Your task to perform on an android device: What is the news today? Image 0: 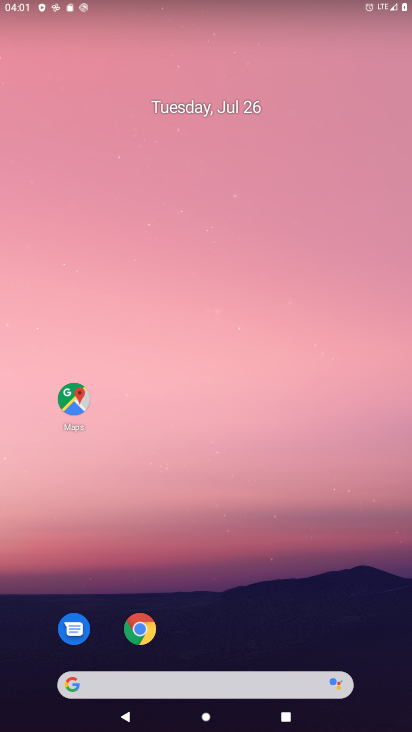
Step 0: drag from (234, 608) to (280, 94)
Your task to perform on an android device: What is the news today? Image 1: 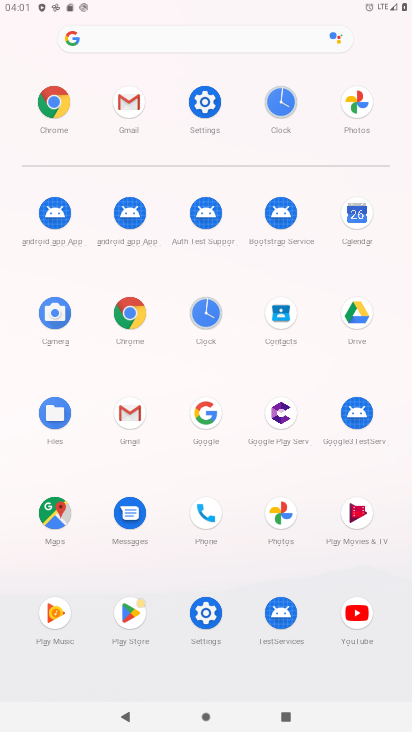
Step 1: click (132, 314)
Your task to perform on an android device: What is the news today? Image 2: 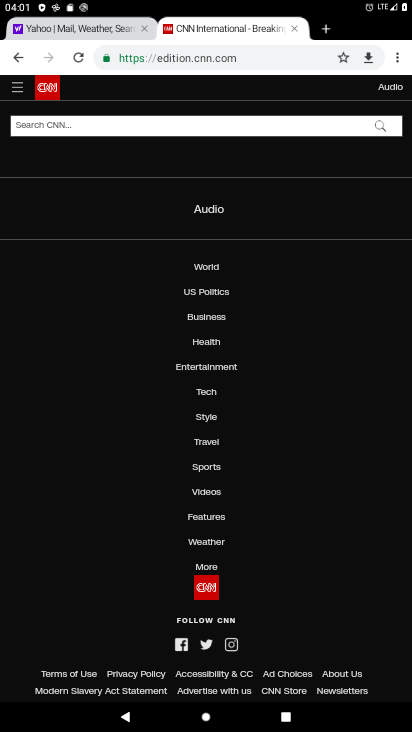
Step 2: click (195, 54)
Your task to perform on an android device: What is the news today? Image 3: 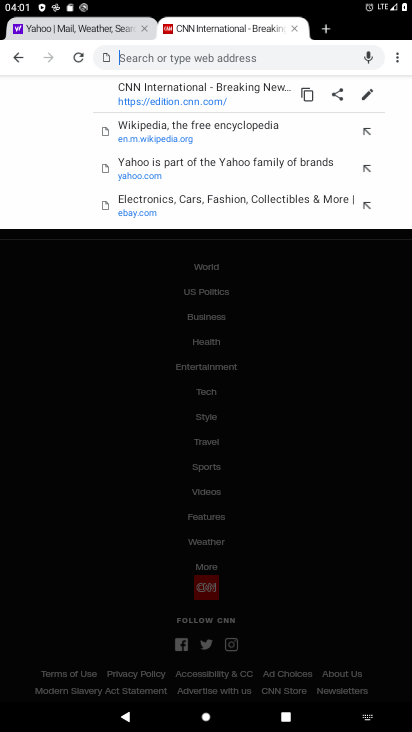
Step 3: type "What is the news today?"
Your task to perform on an android device: What is the news today? Image 4: 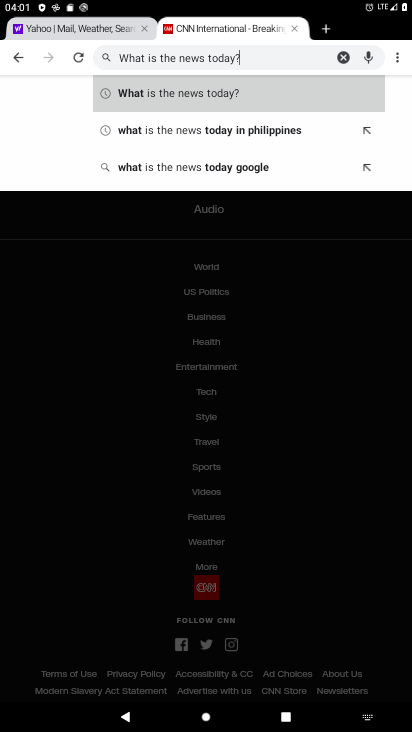
Step 4: click (179, 90)
Your task to perform on an android device: What is the news today? Image 5: 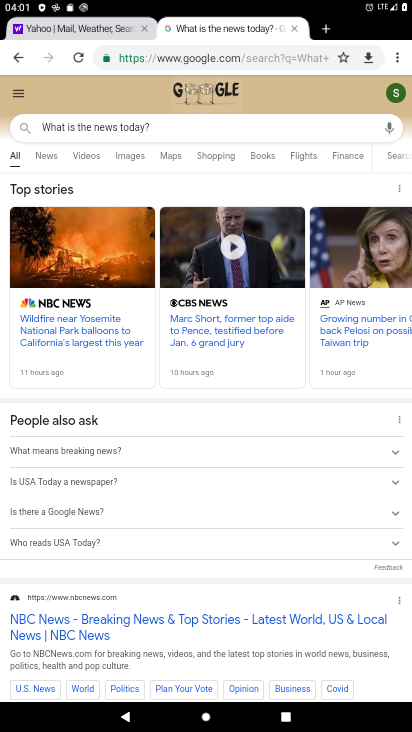
Step 5: task complete